Your task to perform on an android device: turn off location history Image 0: 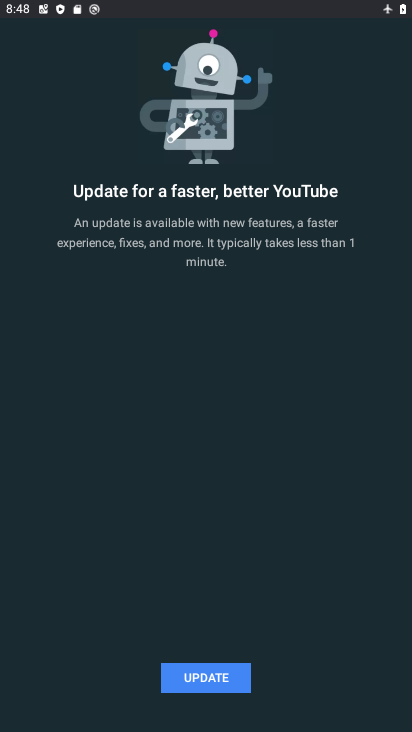
Step 0: press home button
Your task to perform on an android device: turn off location history Image 1: 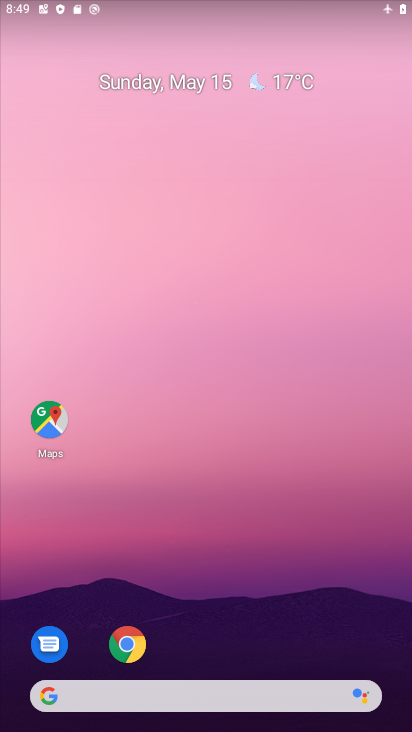
Step 1: drag from (209, 648) to (156, 333)
Your task to perform on an android device: turn off location history Image 2: 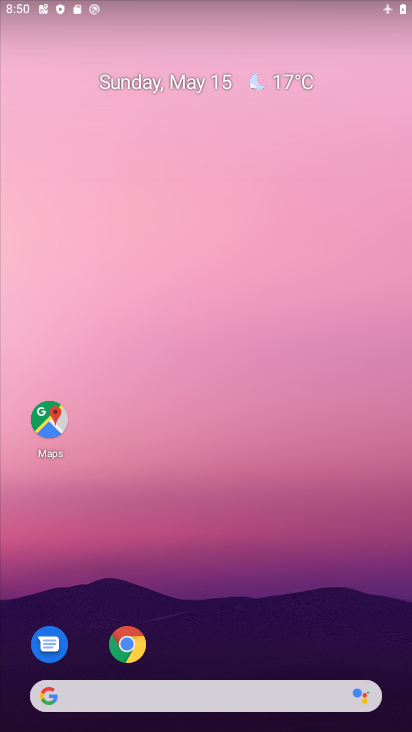
Step 2: drag from (217, 726) to (138, 208)
Your task to perform on an android device: turn off location history Image 3: 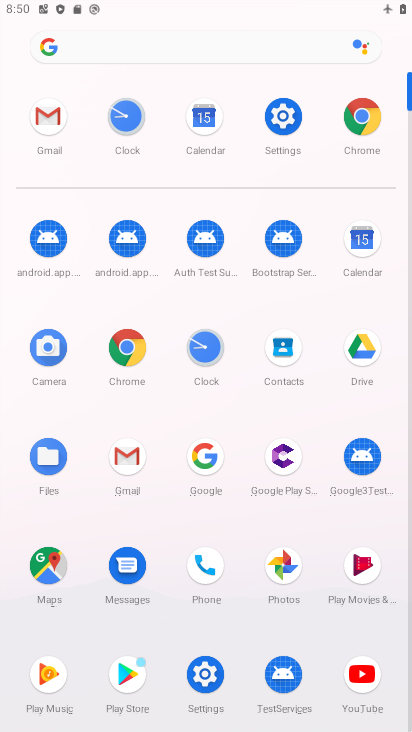
Step 3: click (271, 121)
Your task to perform on an android device: turn off location history Image 4: 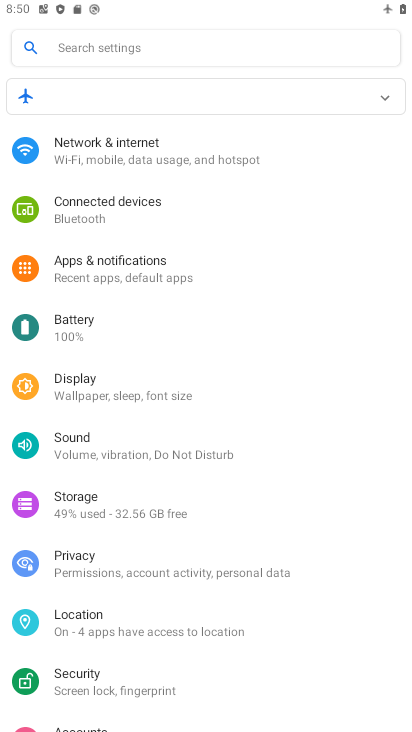
Step 4: click (134, 47)
Your task to perform on an android device: turn off location history Image 5: 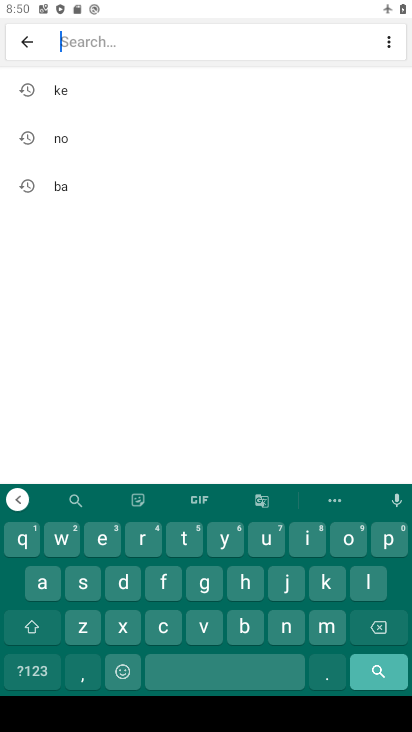
Step 5: click (373, 588)
Your task to perform on an android device: turn off location history Image 6: 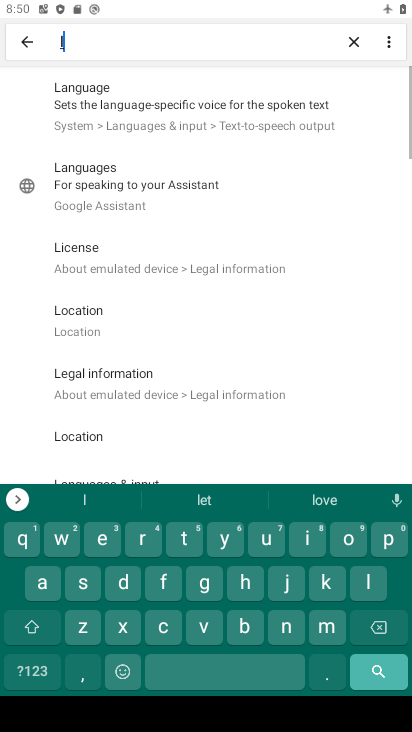
Step 6: click (350, 543)
Your task to perform on an android device: turn off location history Image 7: 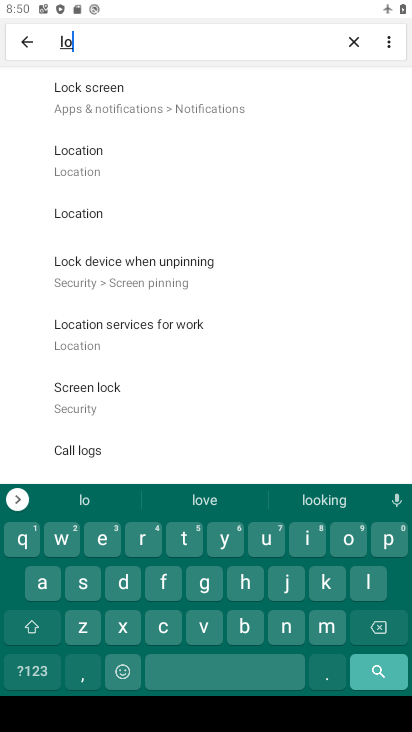
Step 7: click (139, 167)
Your task to perform on an android device: turn off location history Image 8: 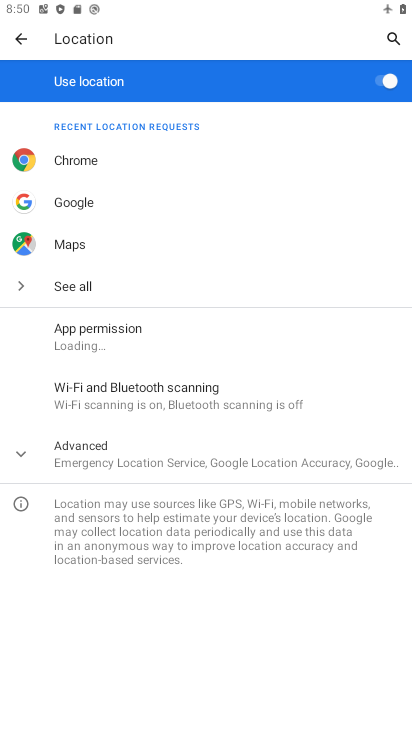
Step 8: click (51, 440)
Your task to perform on an android device: turn off location history Image 9: 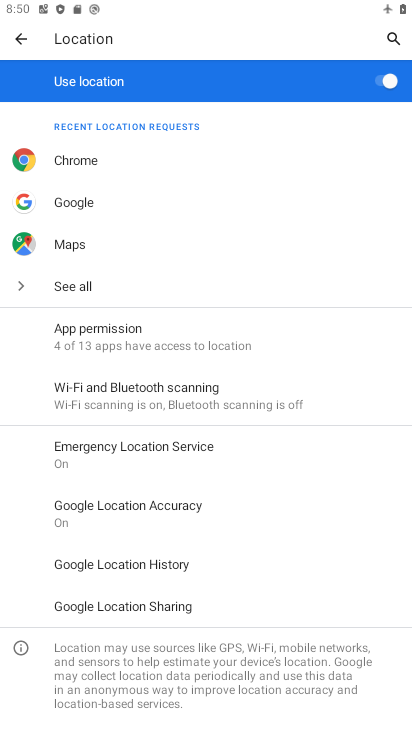
Step 9: click (214, 561)
Your task to perform on an android device: turn off location history Image 10: 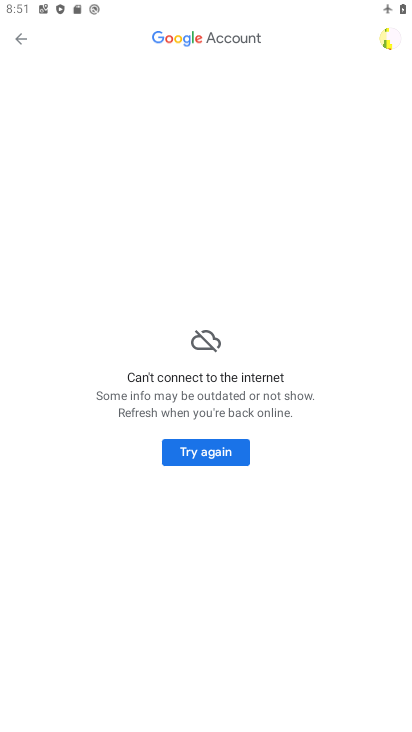
Step 10: press home button
Your task to perform on an android device: turn off location history Image 11: 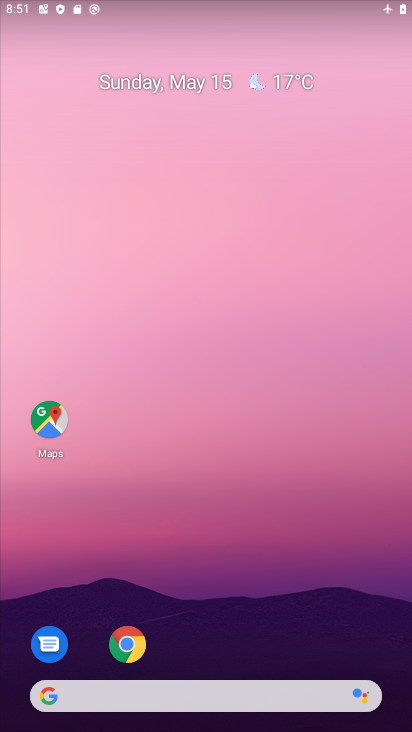
Step 11: drag from (261, 714) to (303, 149)
Your task to perform on an android device: turn off location history Image 12: 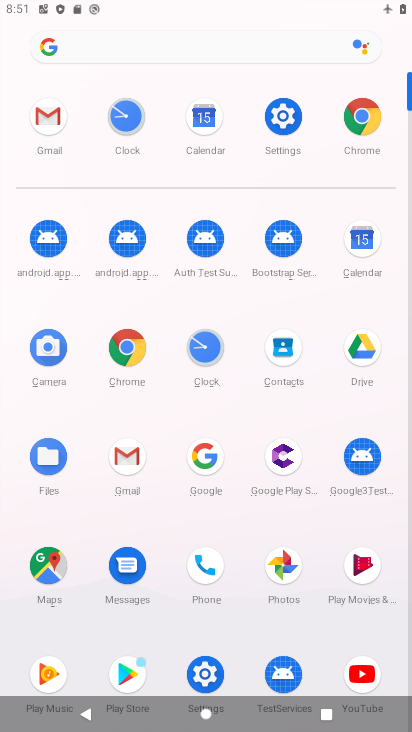
Step 12: click (294, 122)
Your task to perform on an android device: turn off location history Image 13: 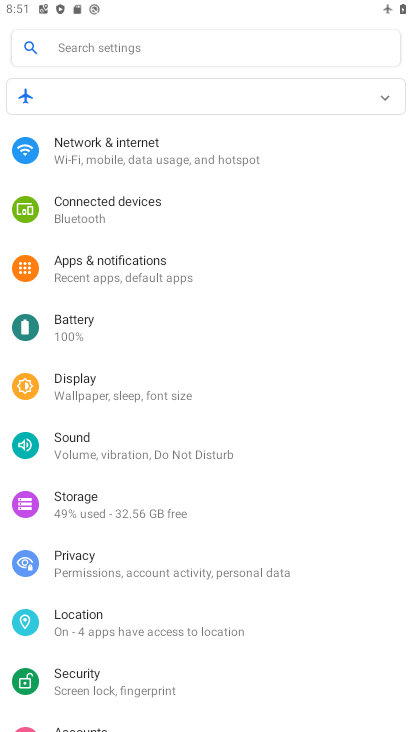
Step 13: click (379, 90)
Your task to perform on an android device: turn off location history Image 14: 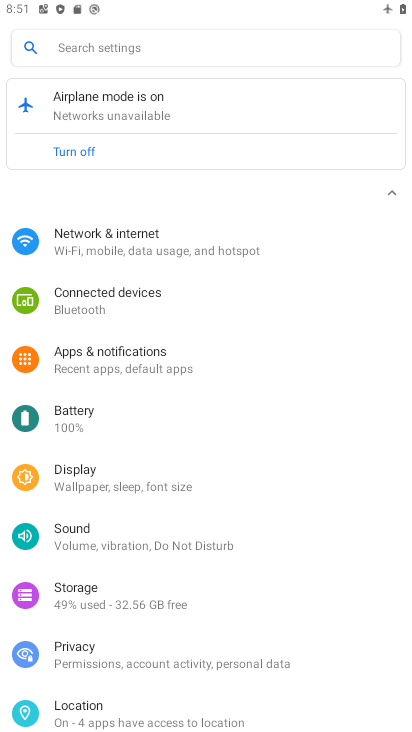
Step 14: click (76, 147)
Your task to perform on an android device: turn off location history Image 15: 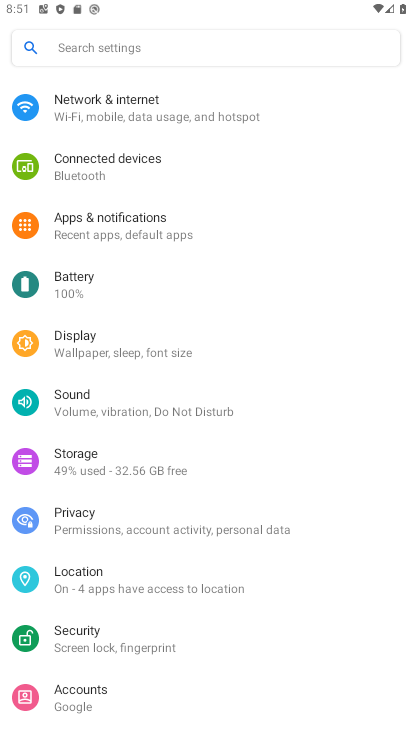
Step 15: click (130, 47)
Your task to perform on an android device: turn off location history Image 16: 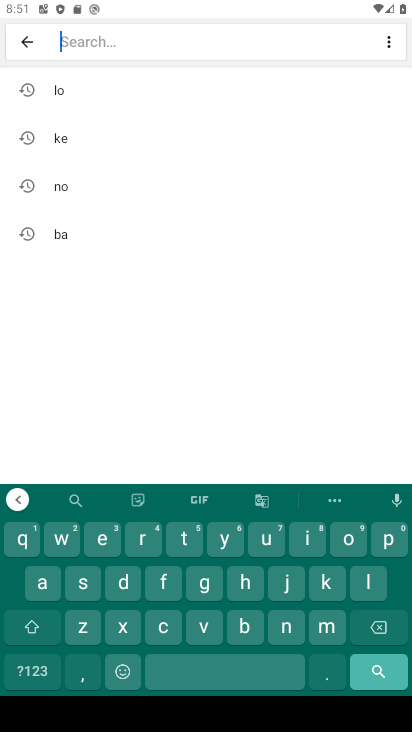
Step 16: click (101, 95)
Your task to perform on an android device: turn off location history Image 17: 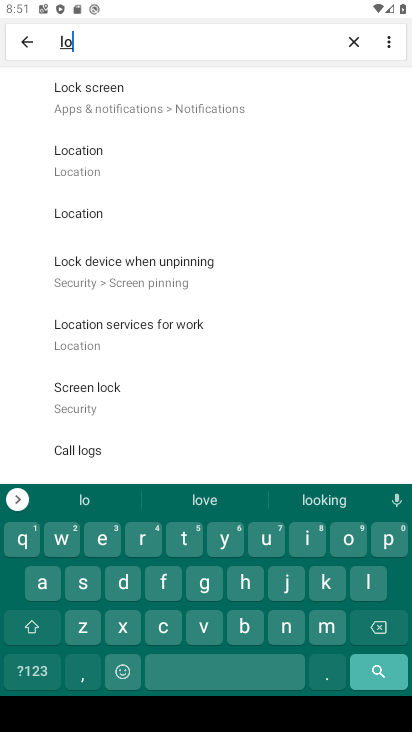
Step 17: click (117, 155)
Your task to perform on an android device: turn off location history Image 18: 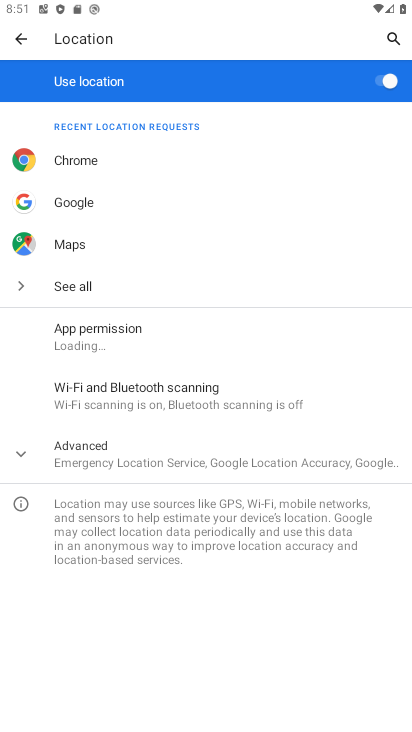
Step 18: click (40, 441)
Your task to perform on an android device: turn off location history Image 19: 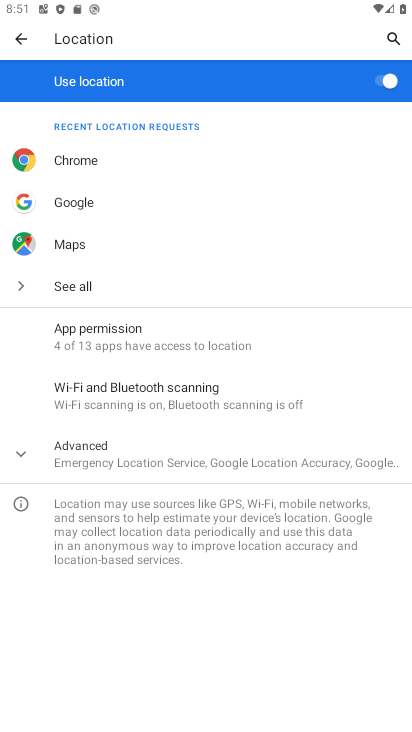
Step 19: click (36, 456)
Your task to perform on an android device: turn off location history Image 20: 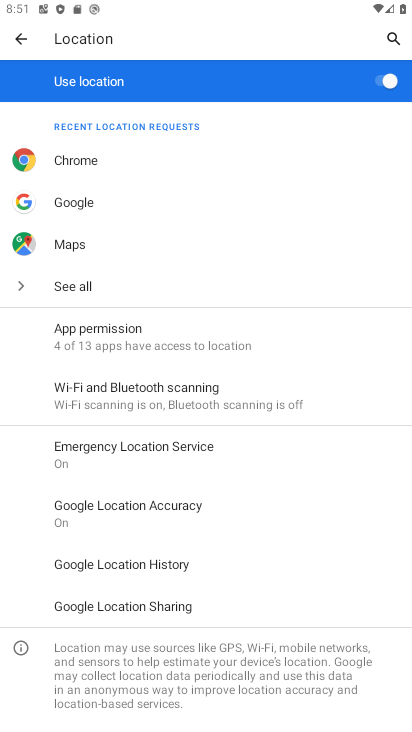
Step 20: click (174, 564)
Your task to perform on an android device: turn off location history Image 21: 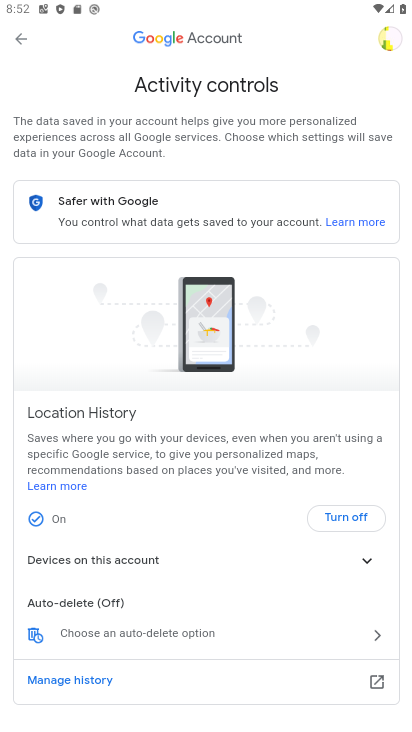
Step 21: task complete